Your task to perform on an android device: Is it going to rain today? Image 0: 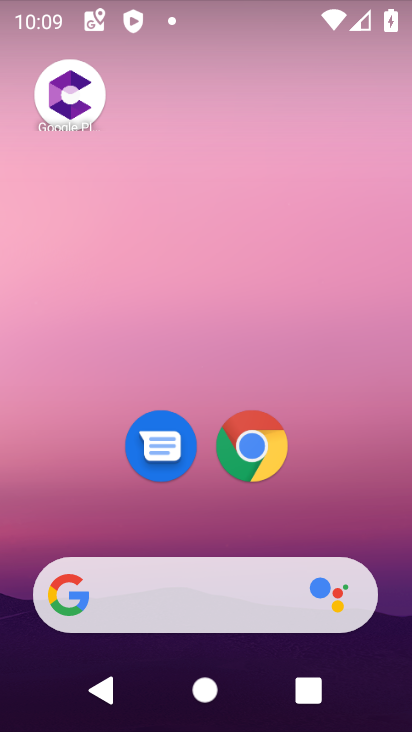
Step 0: drag from (140, 557) to (145, 206)
Your task to perform on an android device: Is it going to rain today? Image 1: 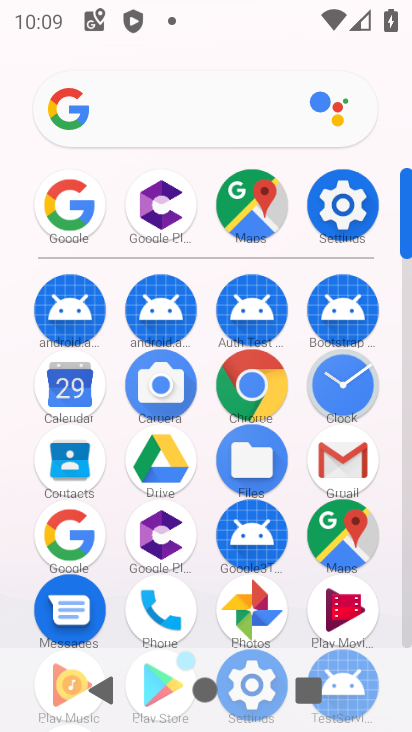
Step 1: click (72, 208)
Your task to perform on an android device: Is it going to rain today? Image 2: 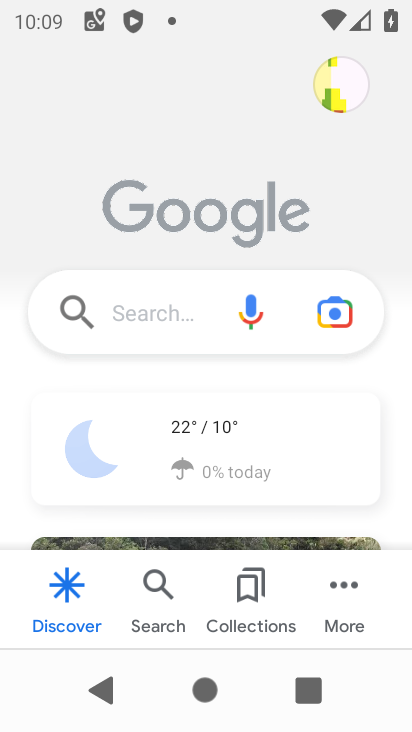
Step 2: click (144, 311)
Your task to perform on an android device: Is it going to rain today? Image 3: 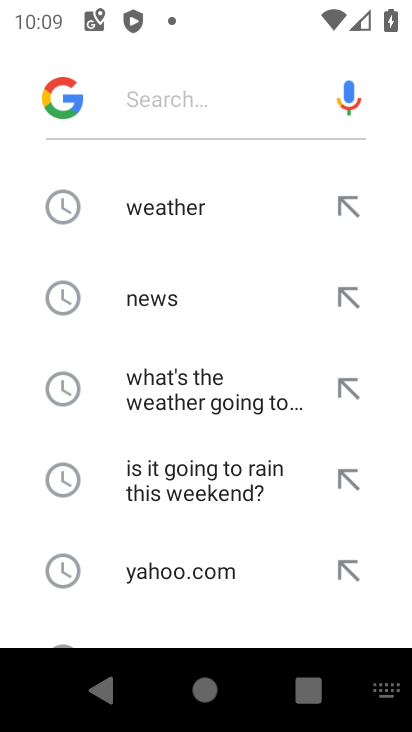
Step 3: click (207, 473)
Your task to perform on an android device: Is it going to rain today? Image 4: 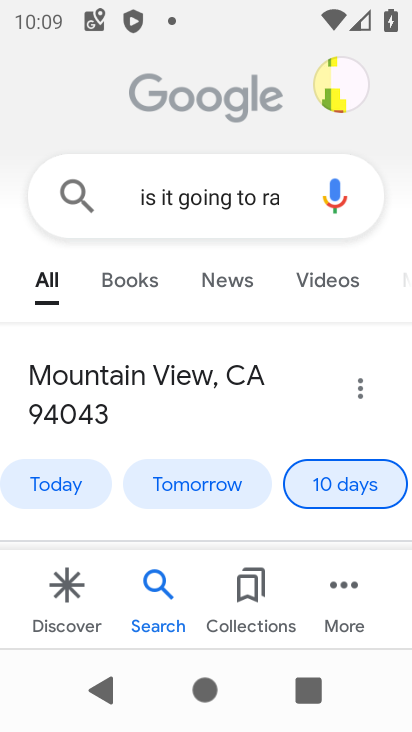
Step 4: click (58, 489)
Your task to perform on an android device: Is it going to rain today? Image 5: 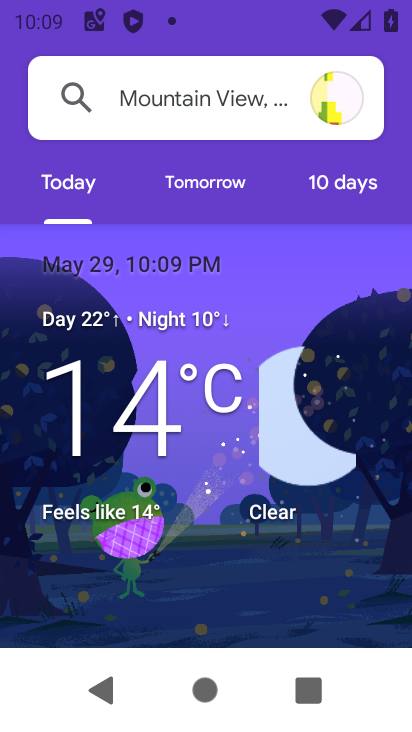
Step 5: task complete